Your task to perform on an android device: find photos in the google photos app Image 0: 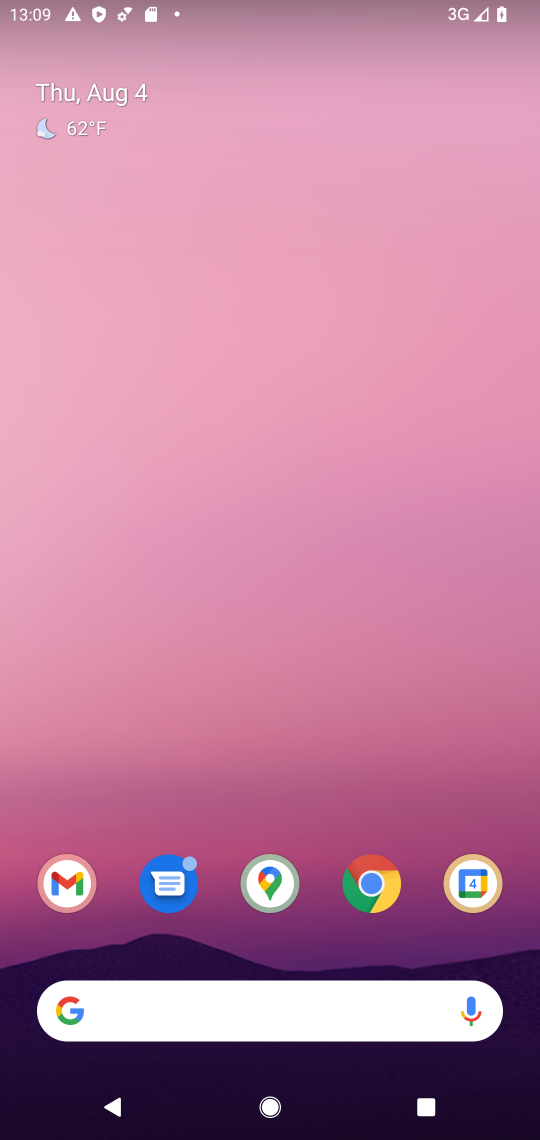
Step 0: drag from (219, 898) to (263, 558)
Your task to perform on an android device: find photos in the google photos app Image 1: 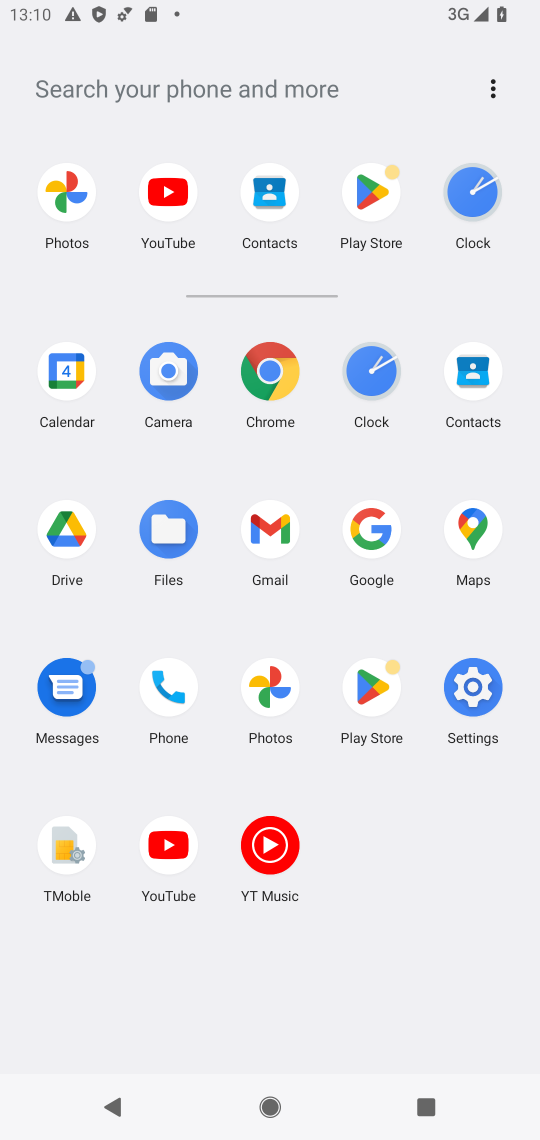
Step 1: click (258, 670)
Your task to perform on an android device: find photos in the google photos app Image 2: 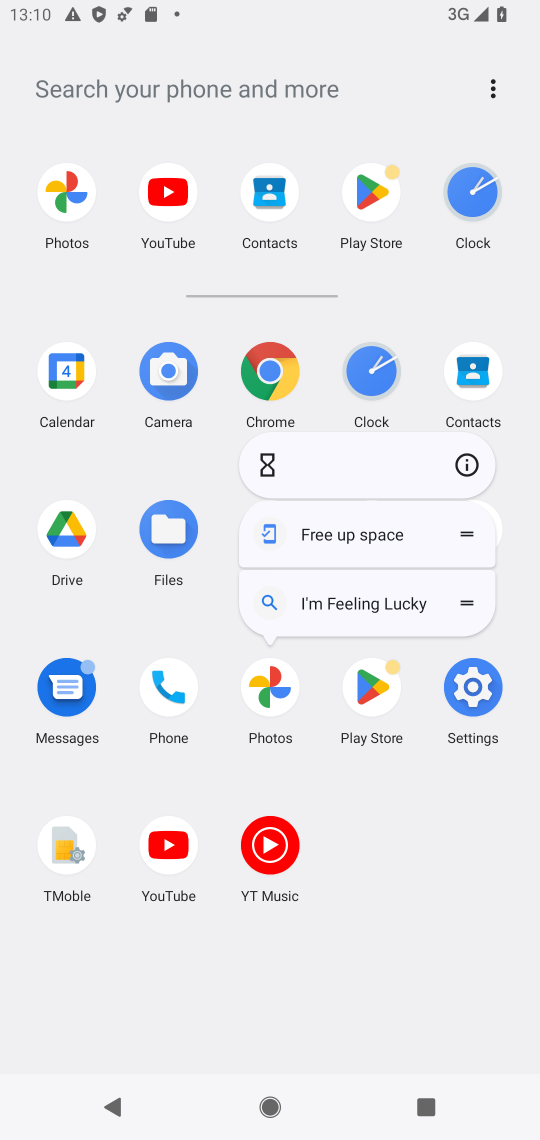
Step 2: click (476, 460)
Your task to perform on an android device: find photos in the google photos app Image 3: 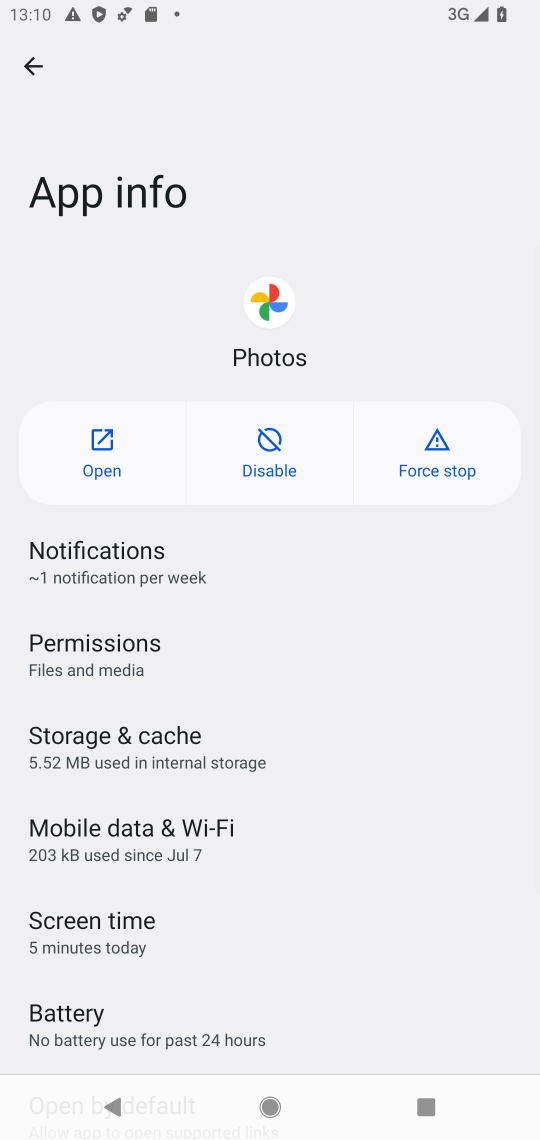
Step 3: click (96, 434)
Your task to perform on an android device: find photos in the google photos app Image 4: 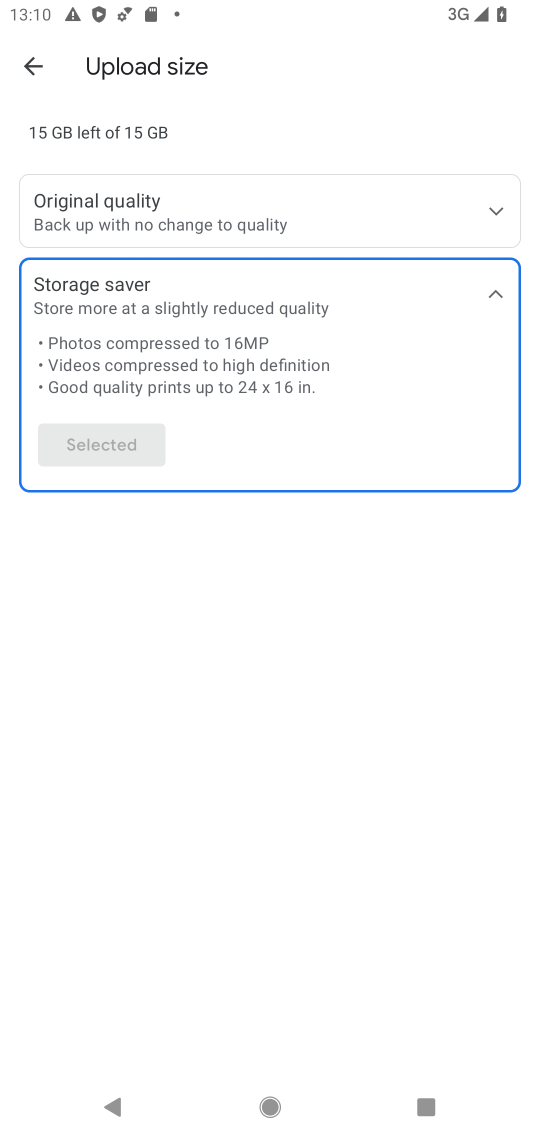
Step 4: click (228, 336)
Your task to perform on an android device: find photos in the google photos app Image 5: 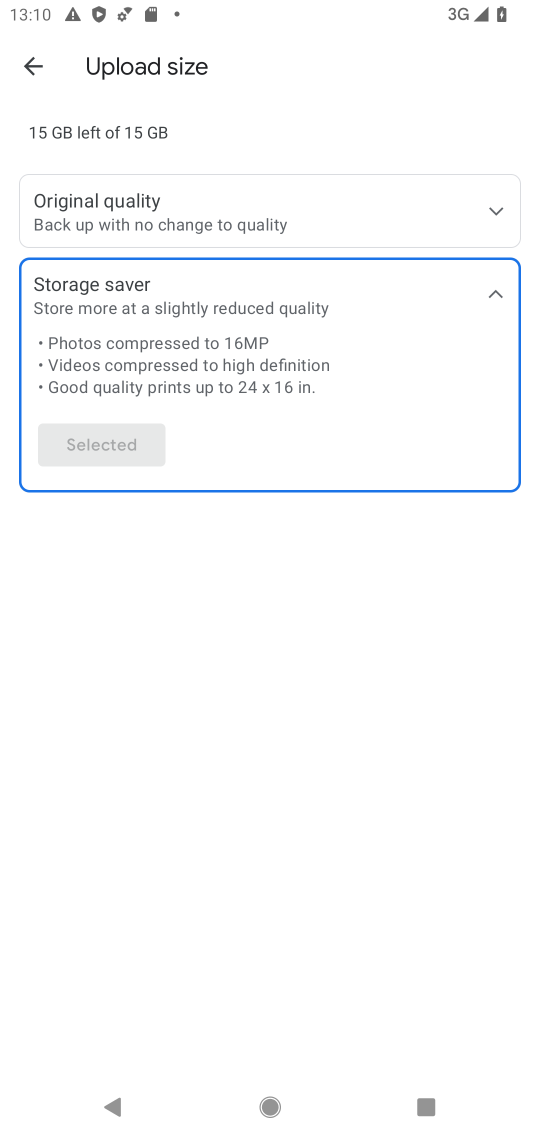
Step 5: click (171, 294)
Your task to perform on an android device: find photos in the google photos app Image 6: 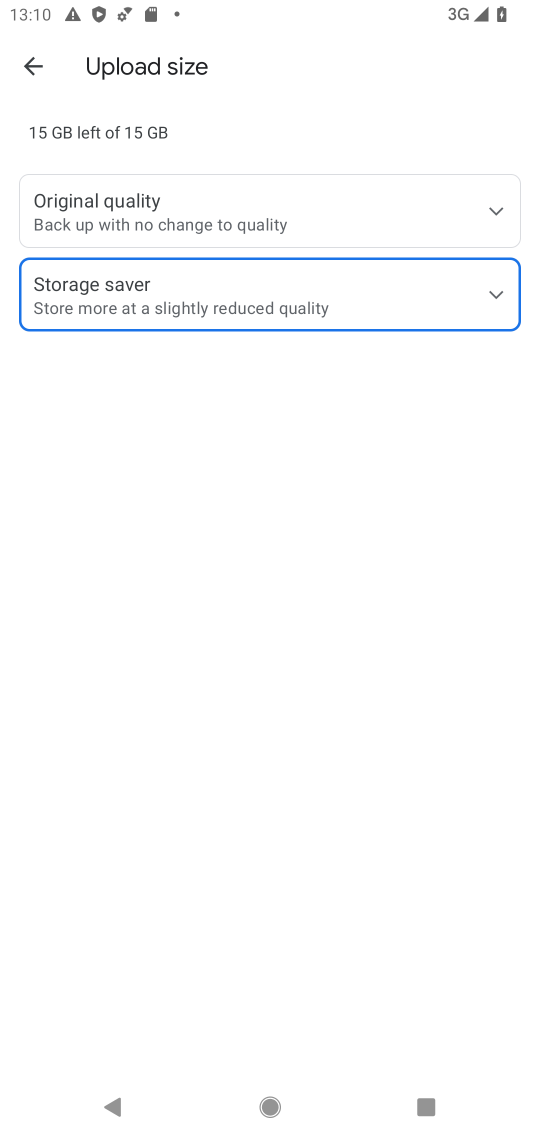
Step 6: click (171, 294)
Your task to perform on an android device: find photos in the google photos app Image 7: 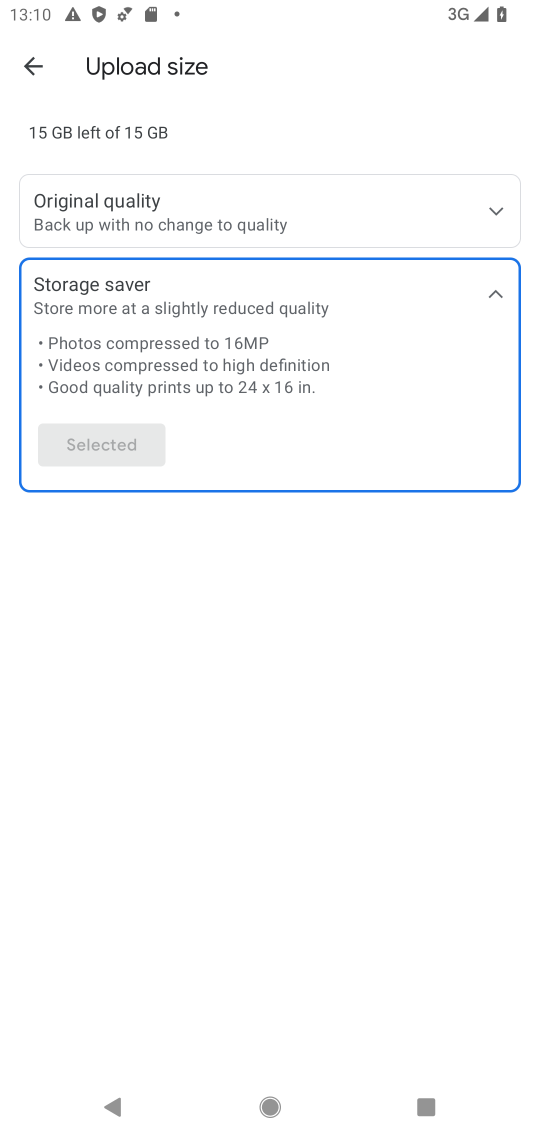
Step 7: click (87, 456)
Your task to perform on an android device: find photos in the google photos app Image 8: 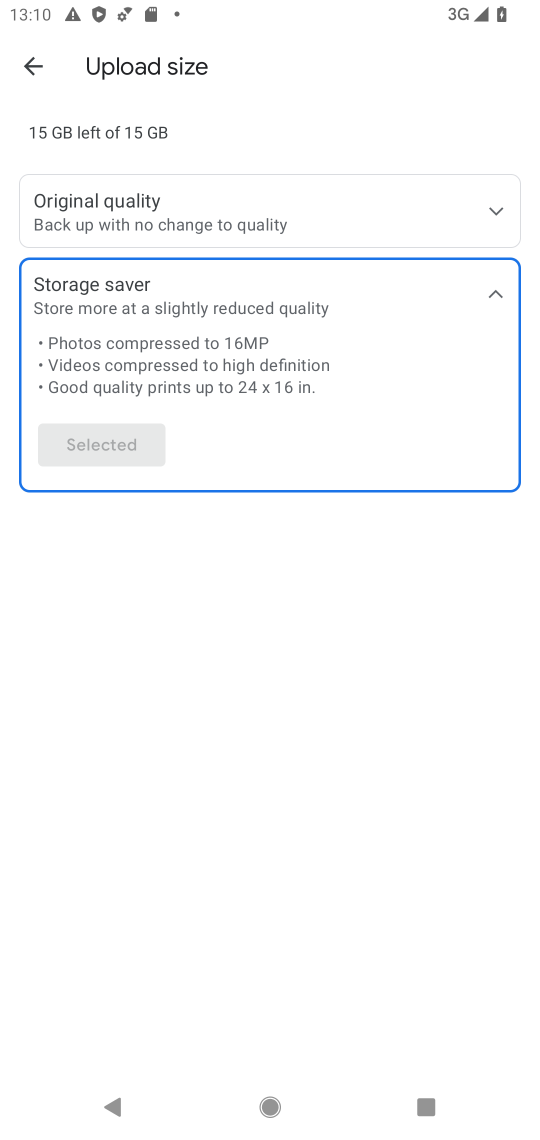
Step 8: click (128, 203)
Your task to perform on an android device: find photos in the google photos app Image 9: 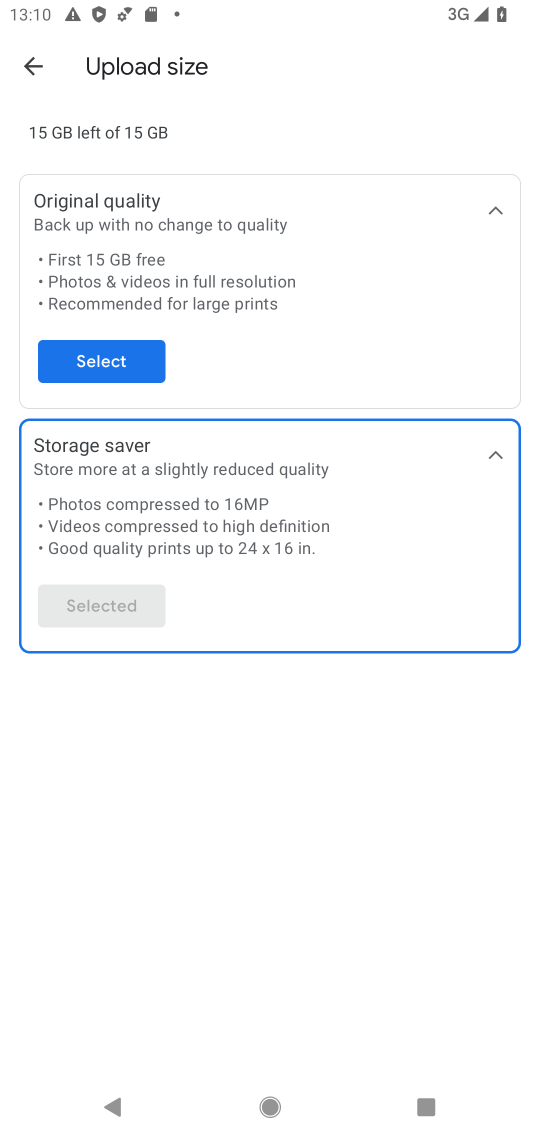
Step 9: click (35, 73)
Your task to perform on an android device: find photos in the google photos app Image 10: 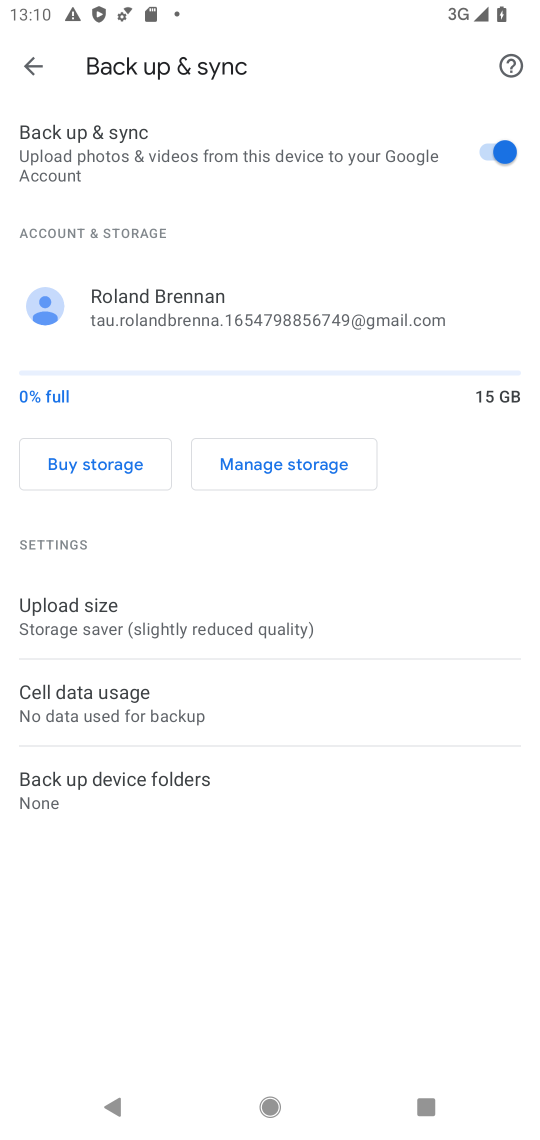
Step 10: click (35, 73)
Your task to perform on an android device: find photos in the google photos app Image 11: 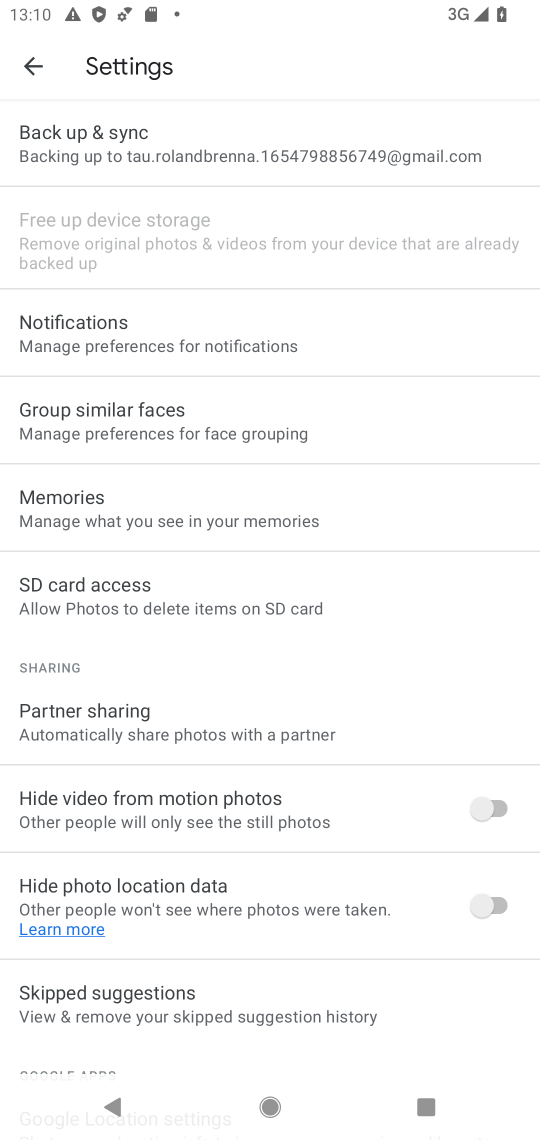
Step 11: click (46, 63)
Your task to perform on an android device: find photos in the google photos app Image 12: 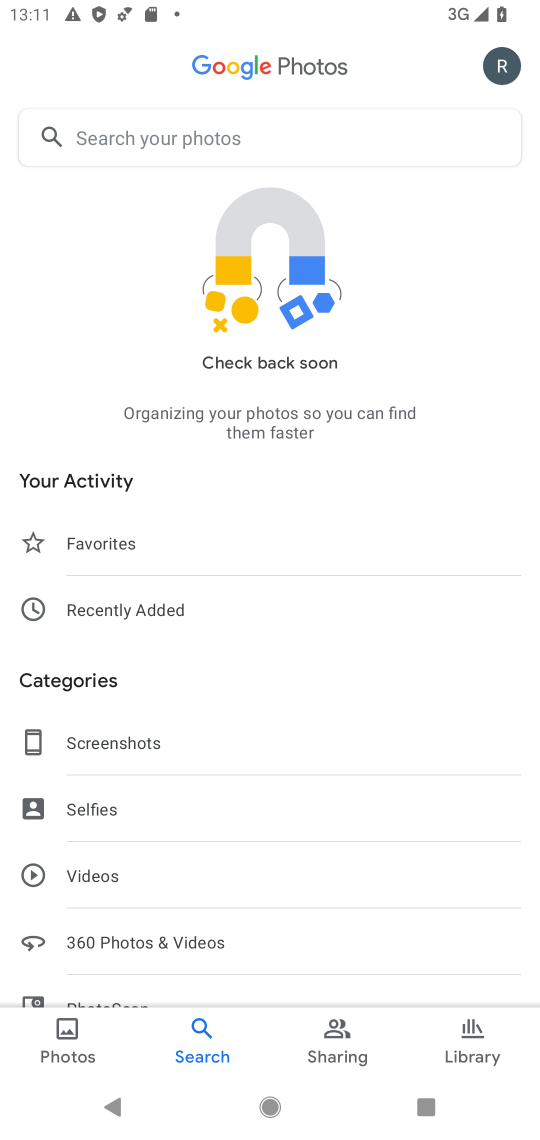
Step 12: press back button
Your task to perform on an android device: find photos in the google photos app Image 13: 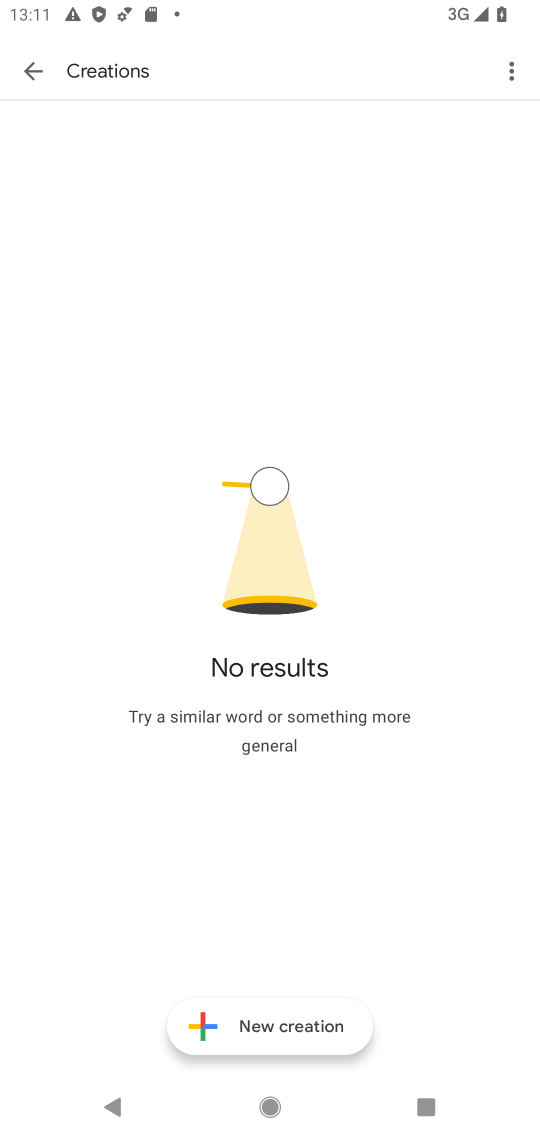
Step 13: drag from (253, 814) to (322, 512)
Your task to perform on an android device: find photos in the google photos app Image 14: 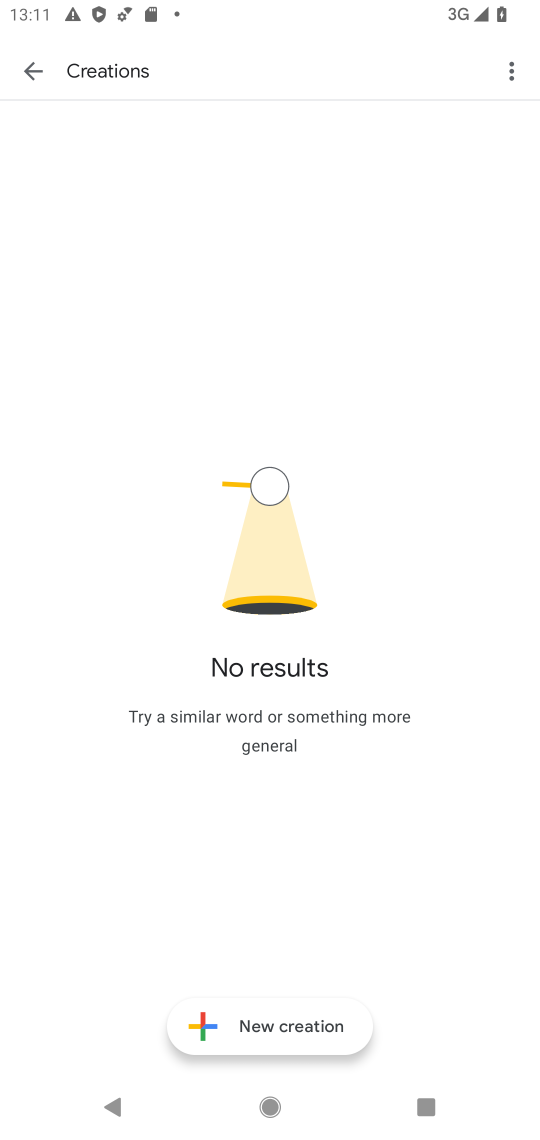
Step 14: click (47, 48)
Your task to perform on an android device: find photos in the google photos app Image 15: 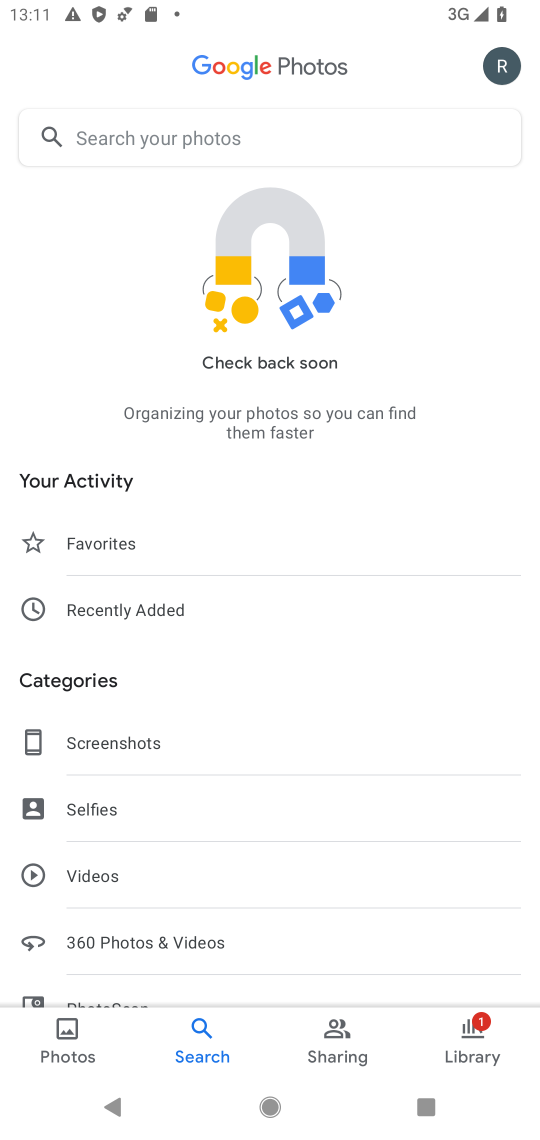
Step 15: click (55, 1051)
Your task to perform on an android device: find photos in the google photos app Image 16: 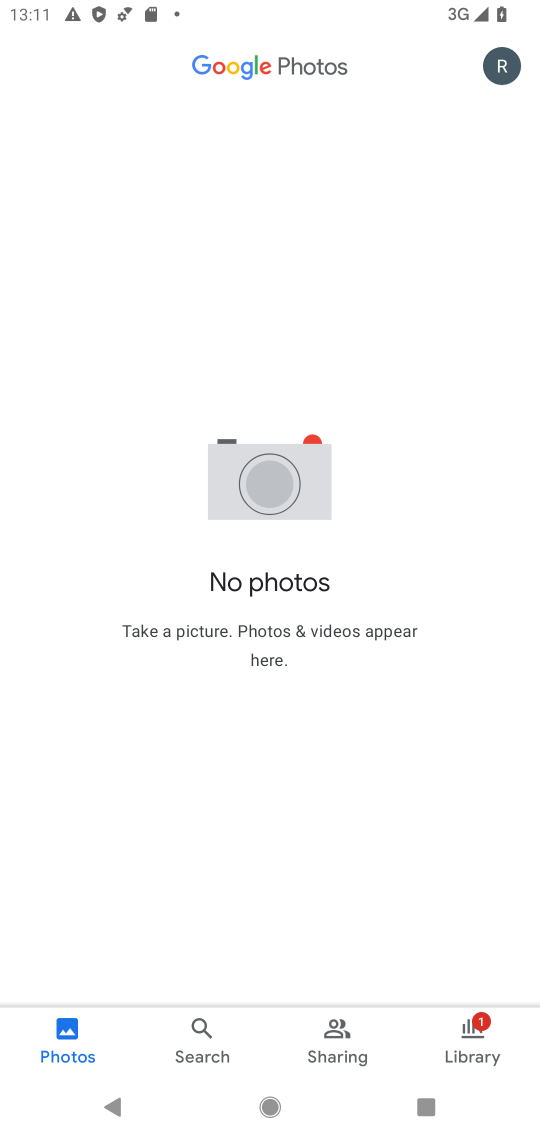
Step 16: task complete